Your task to perform on an android device: Open Chrome and go to the settings page Image 0: 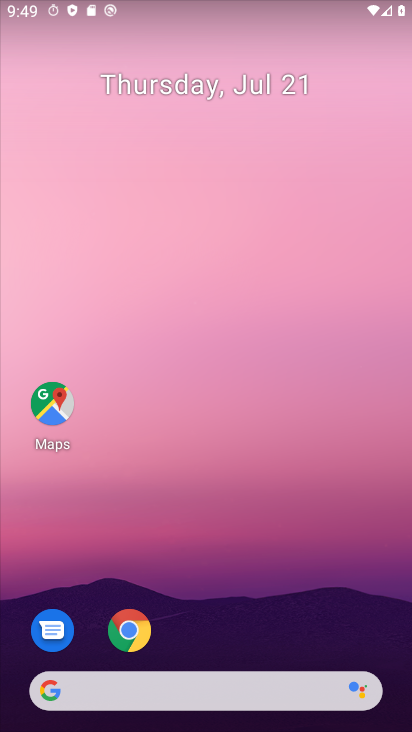
Step 0: drag from (272, 582) to (236, 229)
Your task to perform on an android device: Open Chrome and go to the settings page Image 1: 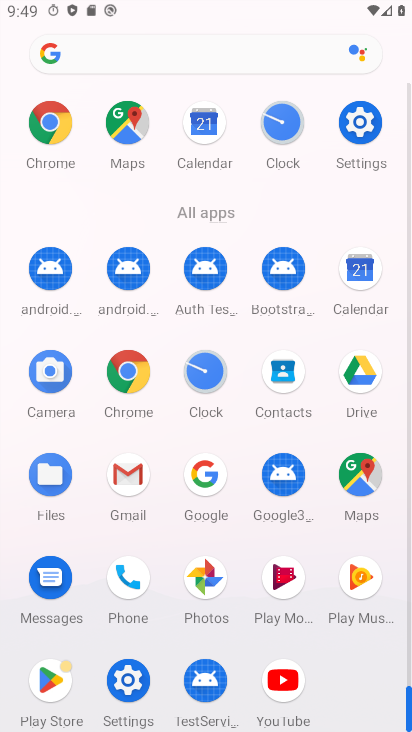
Step 1: click (63, 128)
Your task to perform on an android device: Open Chrome and go to the settings page Image 2: 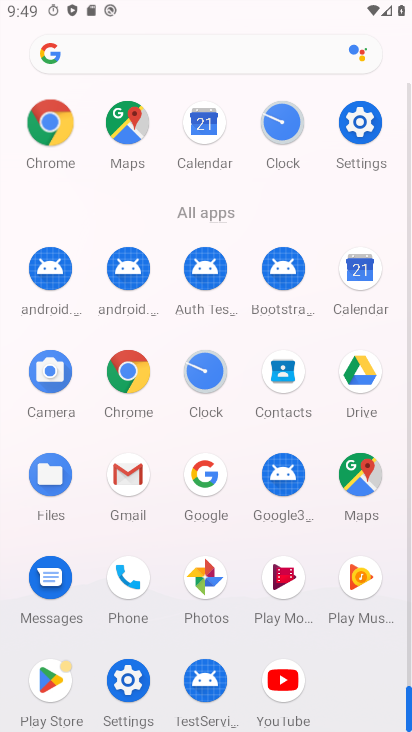
Step 2: click (59, 120)
Your task to perform on an android device: Open Chrome and go to the settings page Image 3: 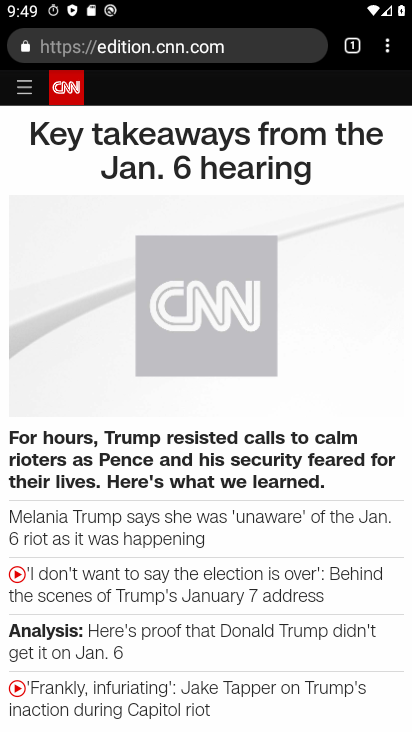
Step 3: drag from (384, 36) to (384, 136)
Your task to perform on an android device: Open Chrome and go to the settings page Image 4: 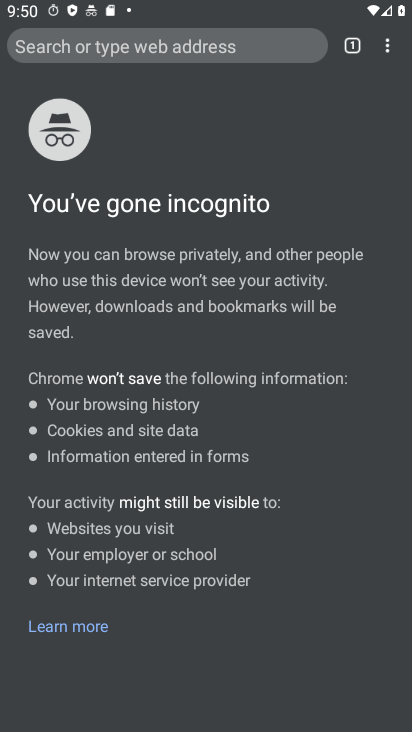
Step 4: drag from (389, 44) to (228, 346)
Your task to perform on an android device: Open Chrome and go to the settings page Image 5: 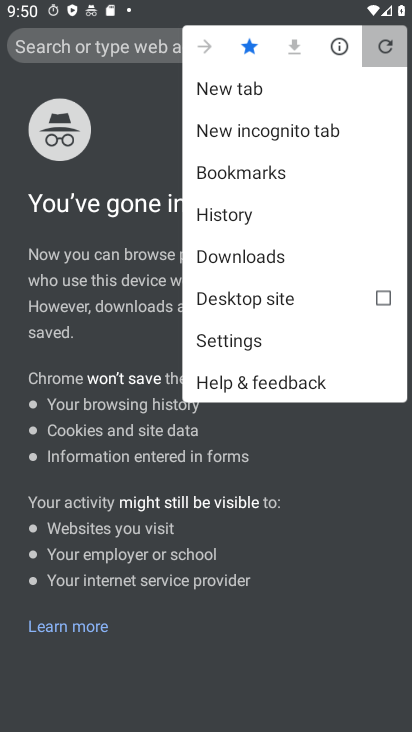
Step 5: click (227, 343)
Your task to perform on an android device: Open Chrome and go to the settings page Image 6: 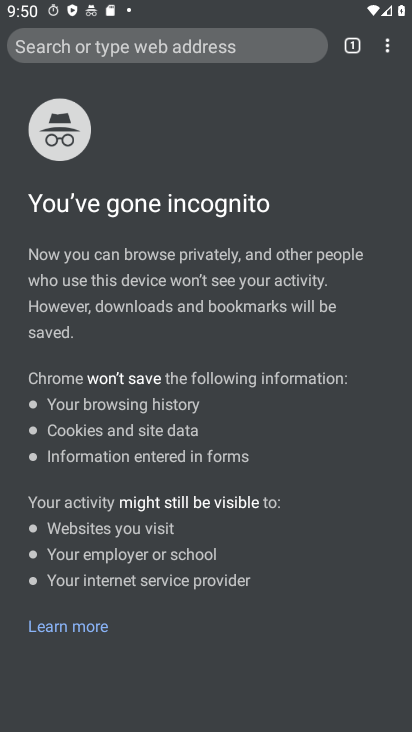
Step 6: click (227, 341)
Your task to perform on an android device: Open Chrome and go to the settings page Image 7: 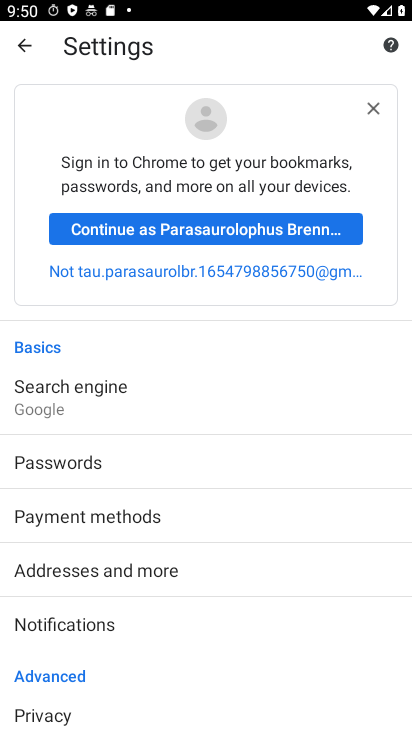
Step 7: task complete